Your task to perform on an android device: Go to Wikipedia Image 0: 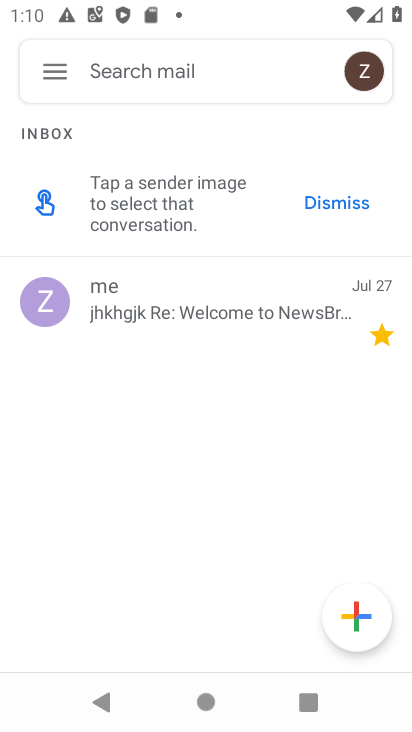
Step 0: press home button
Your task to perform on an android device: Go to Wikipedia Image 1: 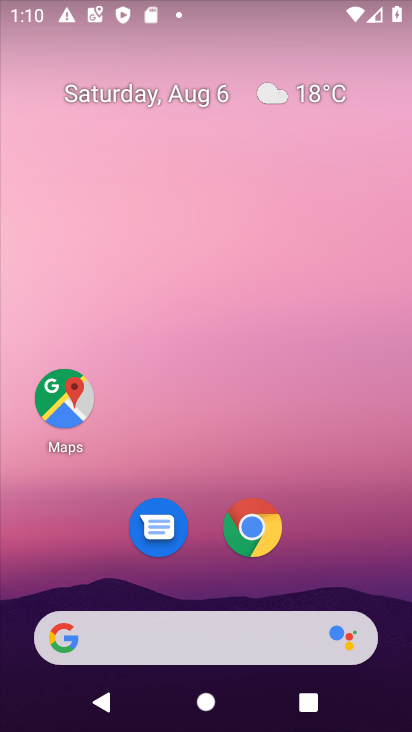
Step 1: drag from (223, 569) to (239, 127)
Your task to perform on an android device: Go to Wikipedia Image 2: 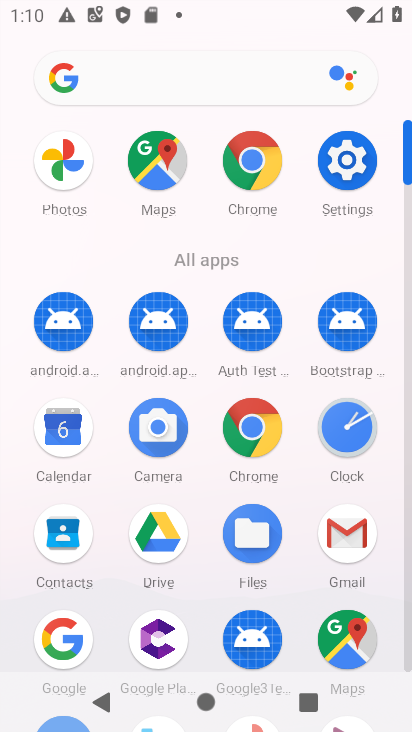
Step 2: click (272, 436)
Your task to perform on an android device: Go to Wikipedia Image 3: 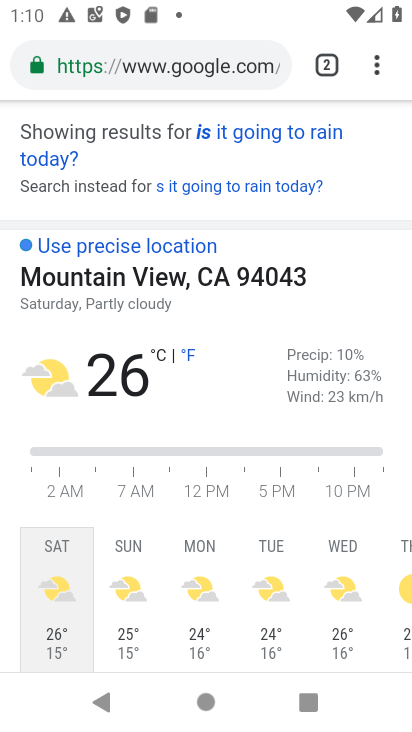
Step 3: click (323, 71)
Your task to perform on an android device: Go to Wikipedia Image 4: 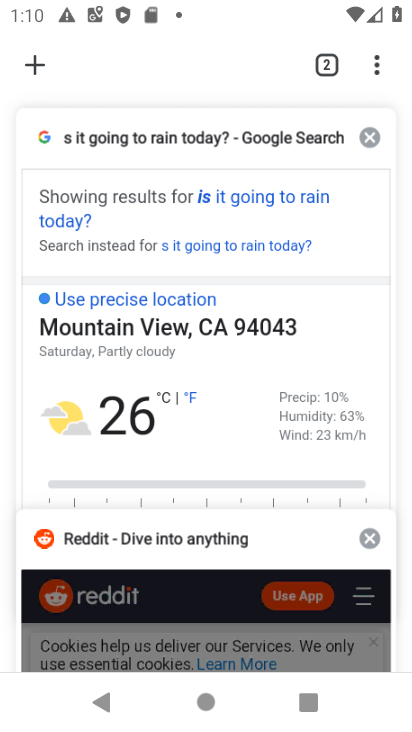
Step 4: click (31, 71)
Your task to perform on an android device: Go to Wikipedia Image 5: 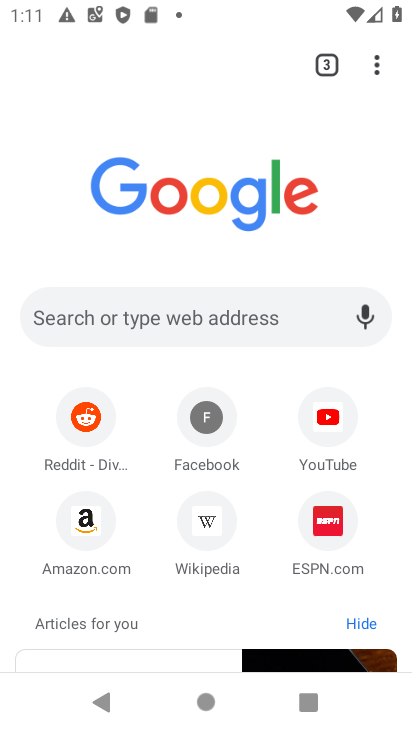
Step 5: click (213, 513)
Your task to perform on an android device: Go to Wikipedia Image 6: 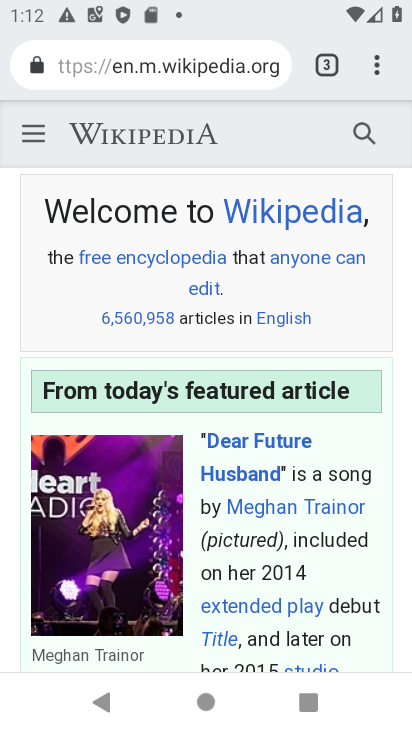
Step 6: task complete